Your task to perform on an android device: Open my contact list Image 0: 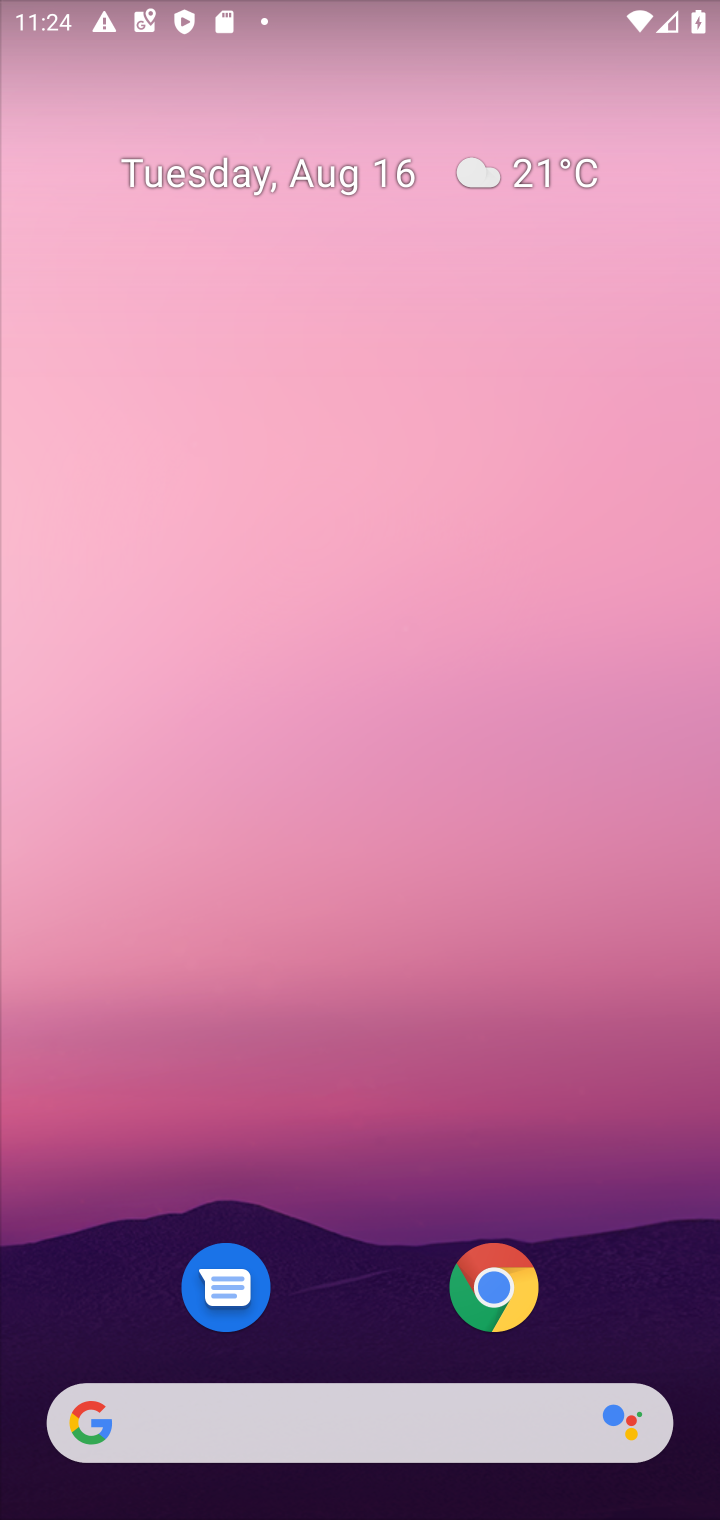
Step 0: drag from (668, 1332) to (631, 165)
Your task to perform on an android device: Open my contact list Image 1: 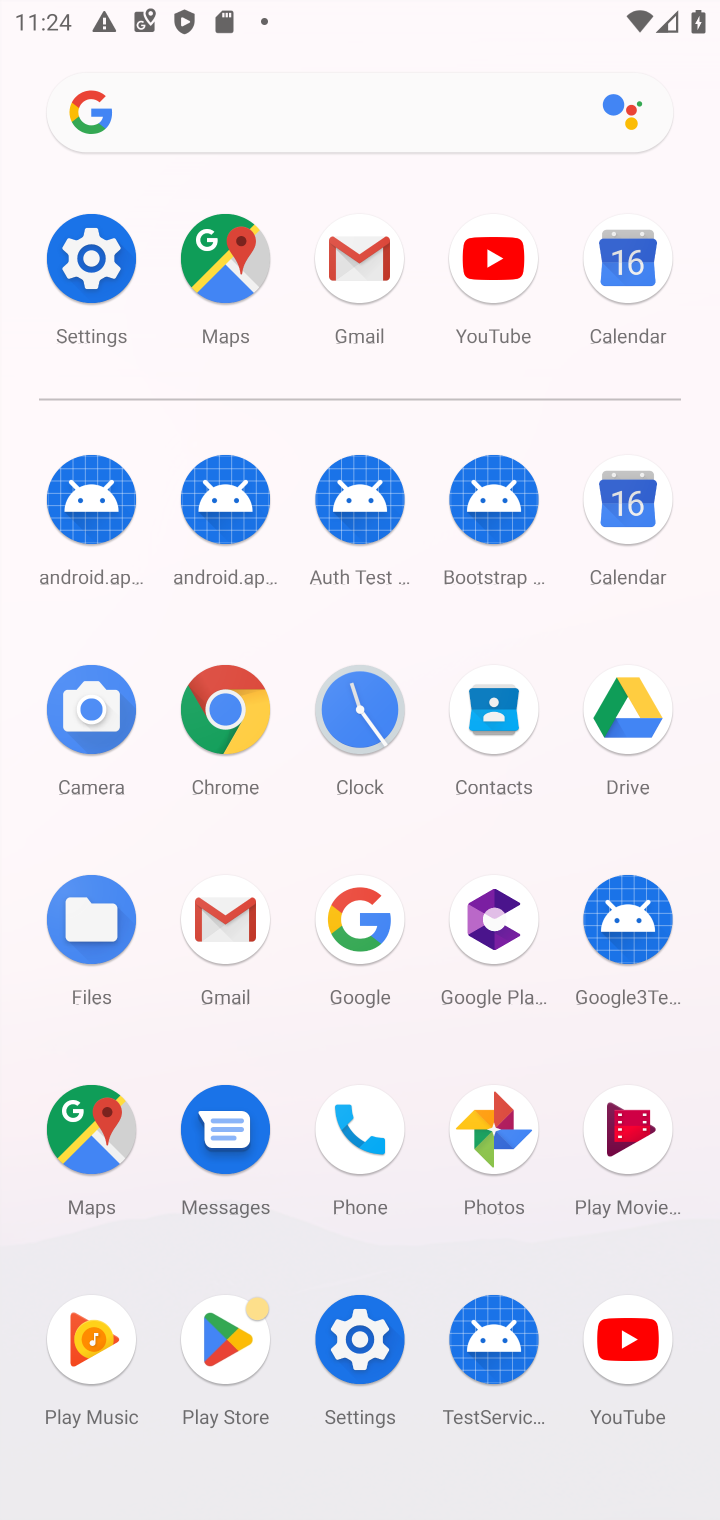
Step 1: click (492, 713)
Your task to perform on an android device: Open my contact list Image 2: 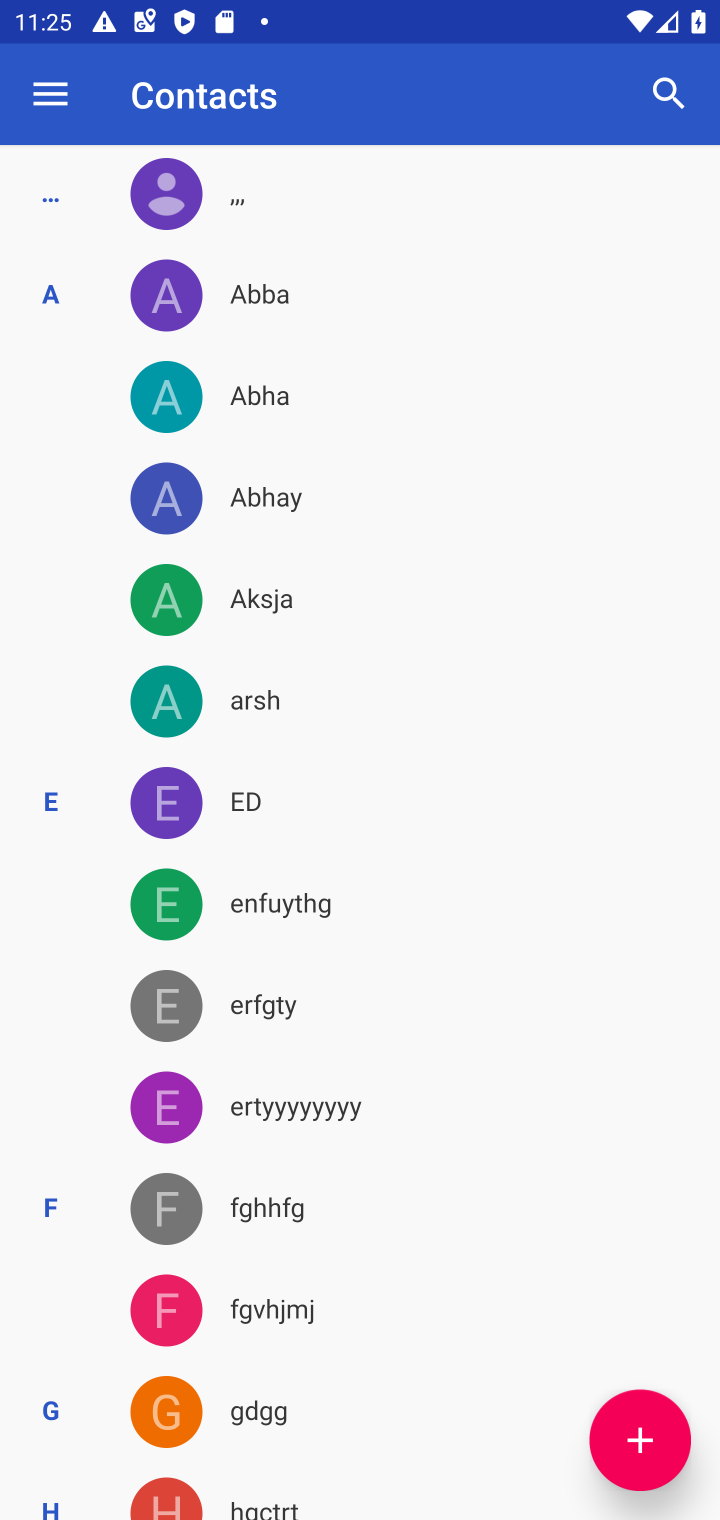
Step 2: task complete